Your task to perform on an android device: open the mobile data screen to see how much data has been used Image 0: 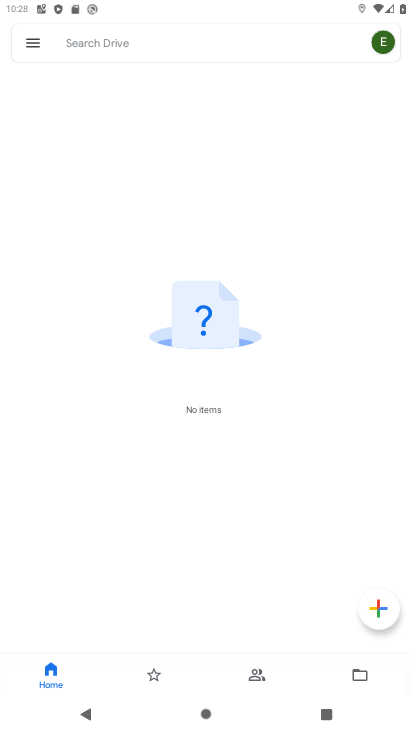
Step 0: press home button
Your task to perform on an android device: open the mobile data screen to see how much data has been used Image 1: 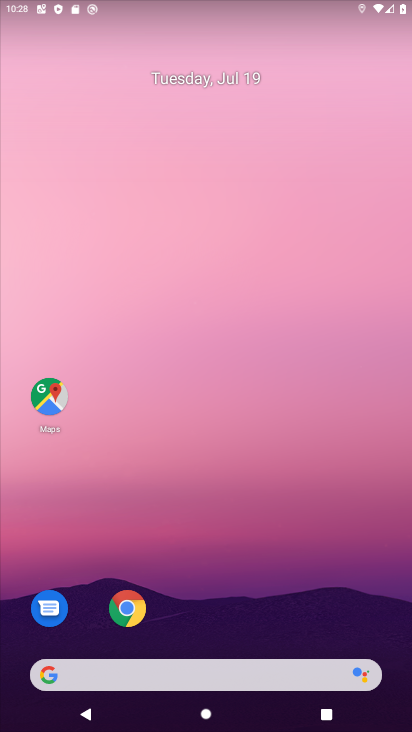
Step 1: drag from (199, 632) to (160, 132)
Your task to perform on an android device: open the mobile data screen to see how much data has been used Image 2: 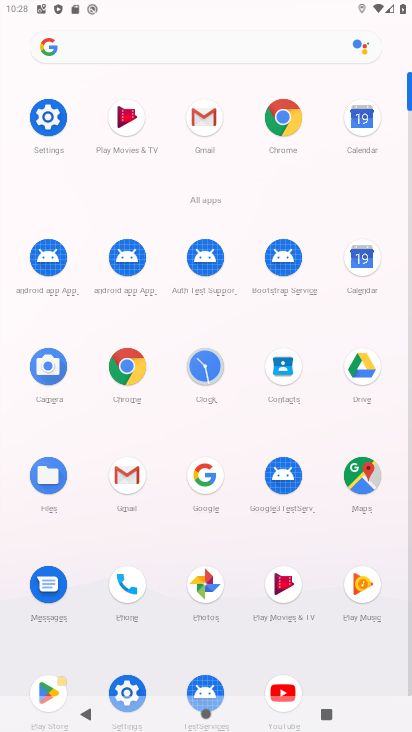
Step 2: click (51, 129)
Your task to perform on an android device: open the mobile data screen to see how much data has been used Image 3: 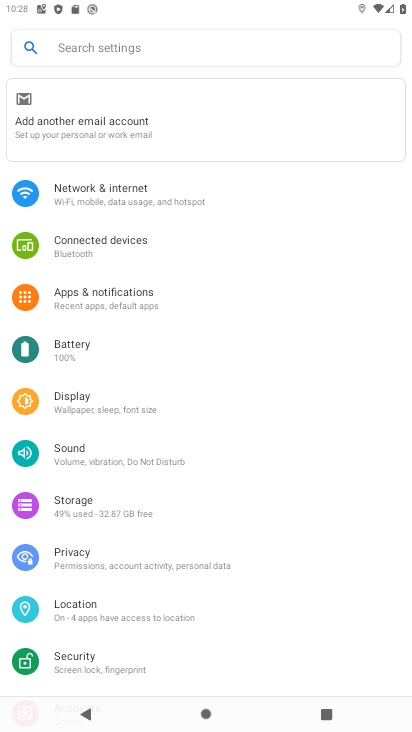
Step 3: click (62, 177)
Your task to perform on an android device: open the mobile data screen to see how much data has been used Image 4: 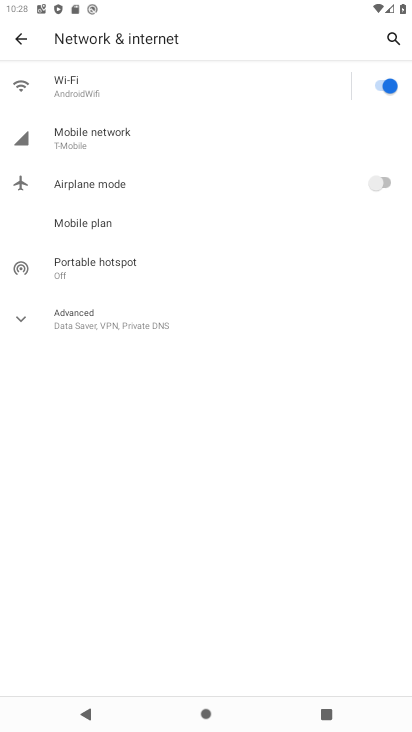
Step 4: click (77, 140)
Your task to perform on an android device: open the mobile data screen to see how much data has been used Image 5: 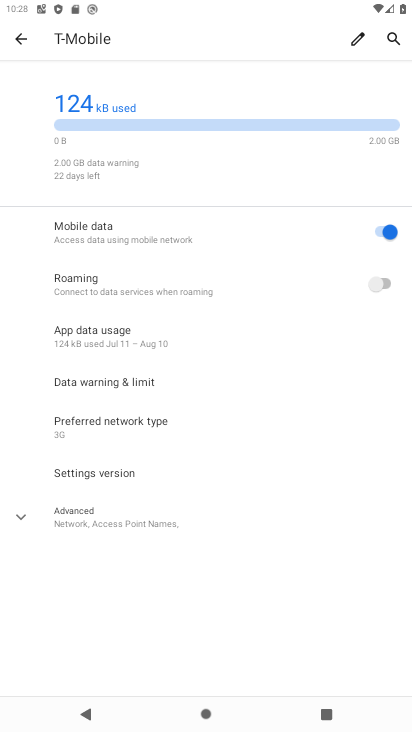
Step 5: task complete